Your task to perform on an android device: turn off location Image 0: 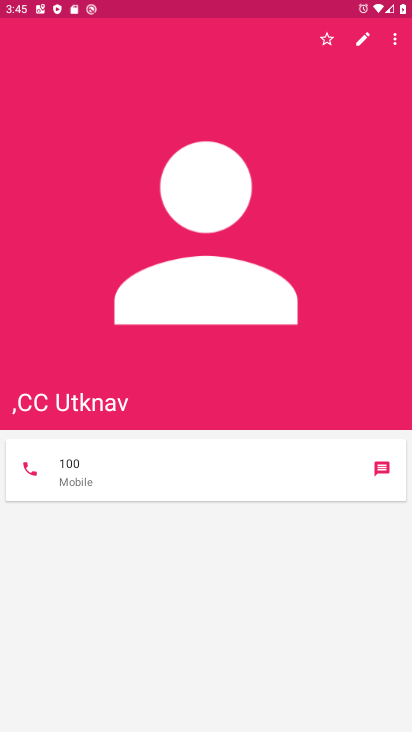
Step 0: press home button
Your task to perform on an android device: turn off location Image 1: 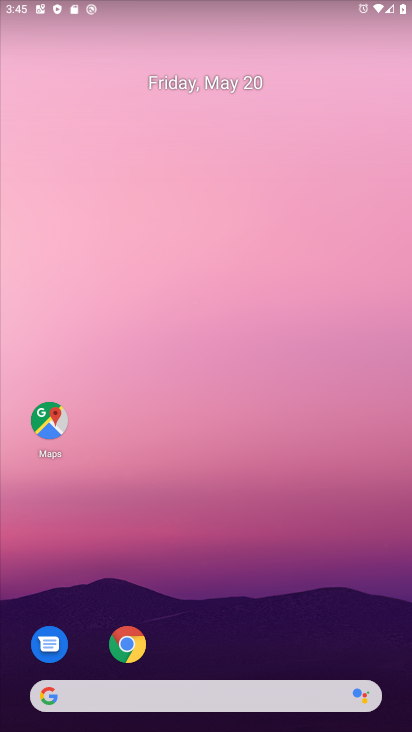
Step 1: drag from (292, 592) to (265, 125)
Your task to perform on an android device: turn off location Image 2: 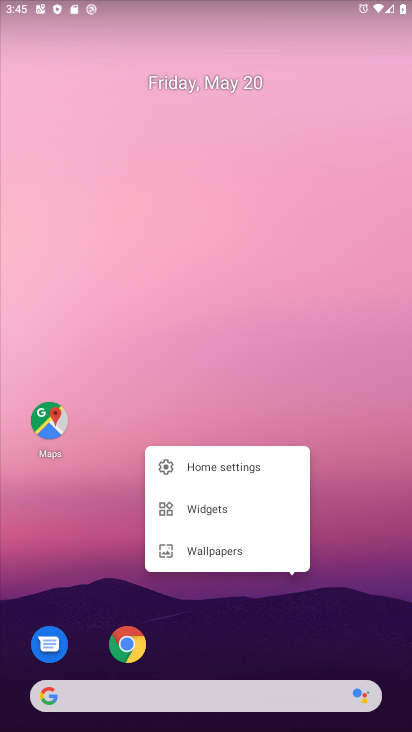
Step 2: click (252, 253)
Your task to perform on an android device: turn off location Image 3: 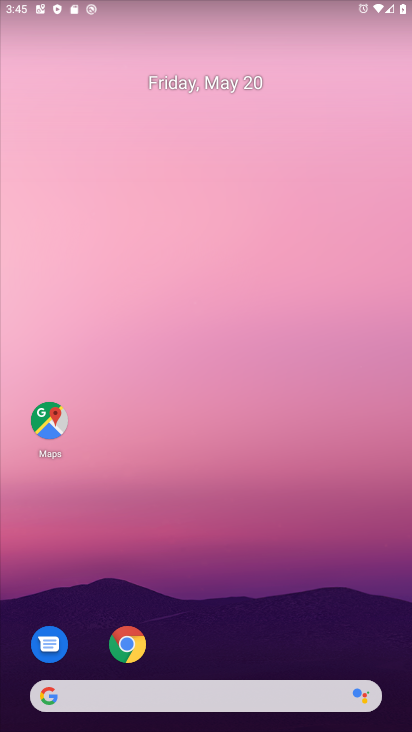
Step 3: drag from (268, 593) to (229, 159)
Your task to perform on an android device: turn off location Image 4: 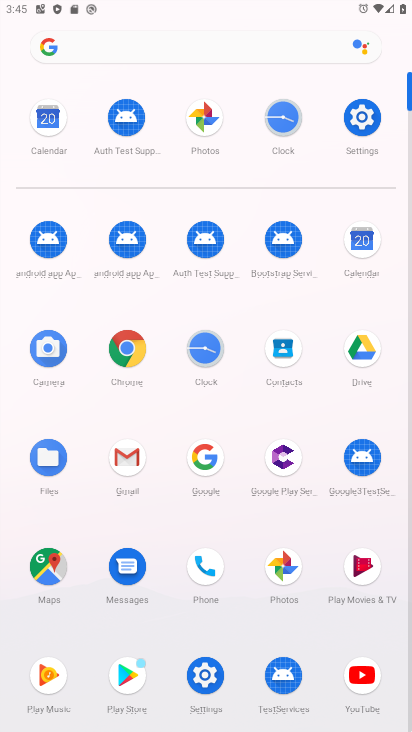
Step 4: click (349, 131)
Your task to perform on an android device: turn off location Image 5: 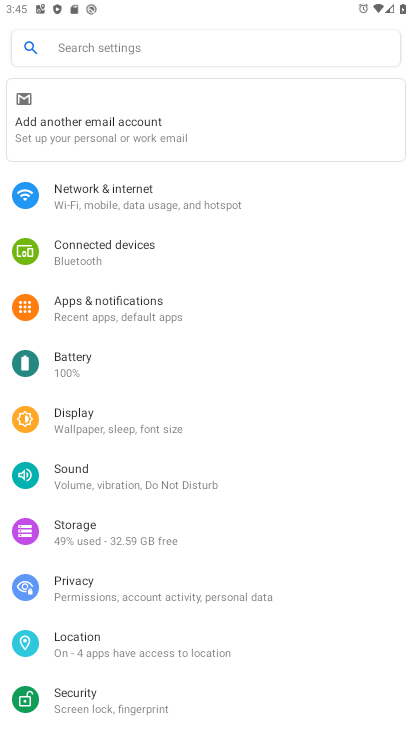
Step 5: click (178, 631)
Your task to perform on an android device: turn off location Image 6: 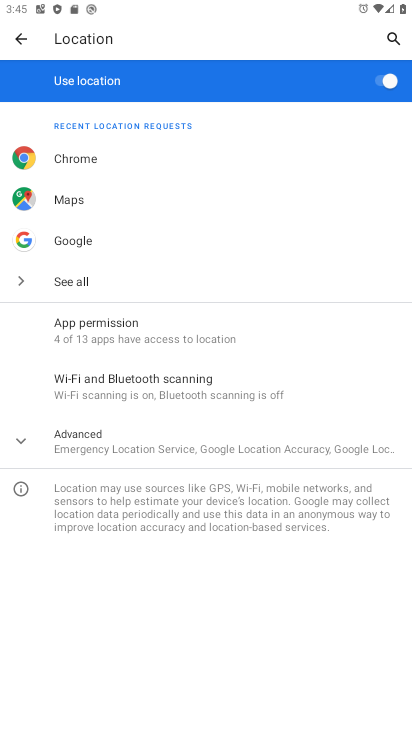
Step 6: click (338, 82)
Your task to perform on an android device: turn off location Image 7: 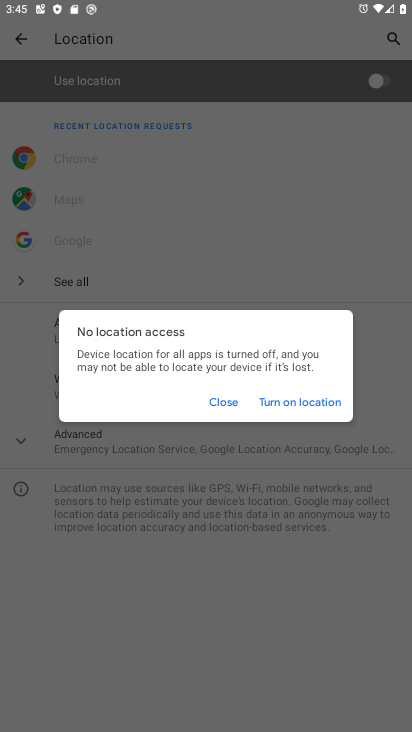
Step 7: task complete